Your task to perform on an android device: turn on wifi Image 0: 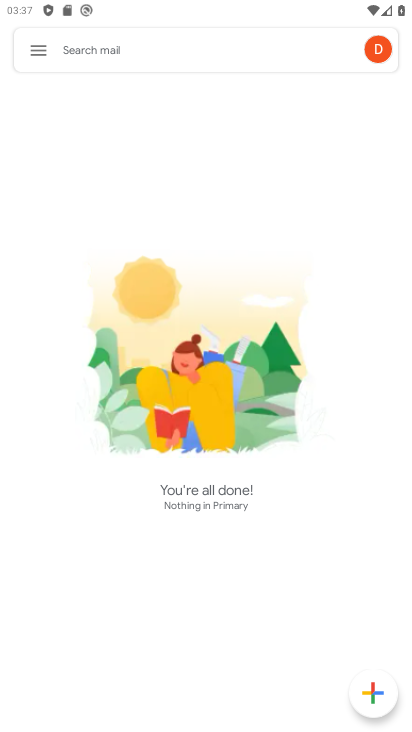
Step 0: press home button
Your task to perform on an android device: turn on wifi Image 1: 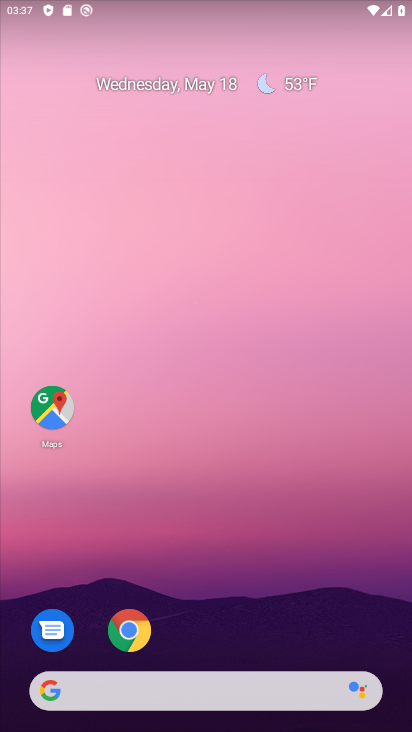
Step 1: drag from (212, 665) to (211, 215)
Your task to perform on an android device: turn on wifi Image 2: 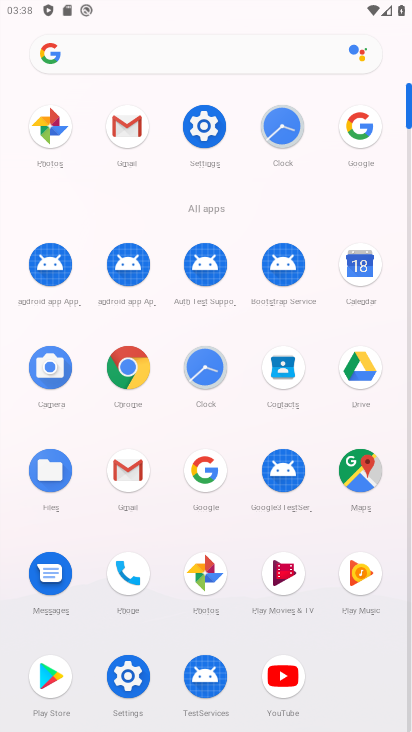
Step 2: click (196, 120)
Your task to perform on an android device: turn on wifi Image 3: 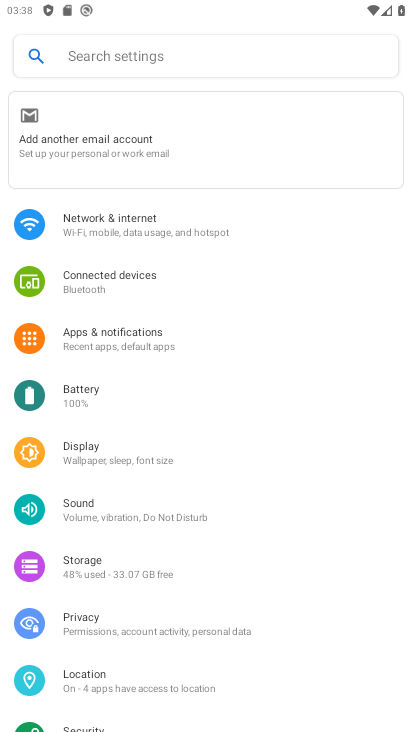
Step 3: click (131, 221)
Your task to perform on an android device: turn on wifi Image 4: 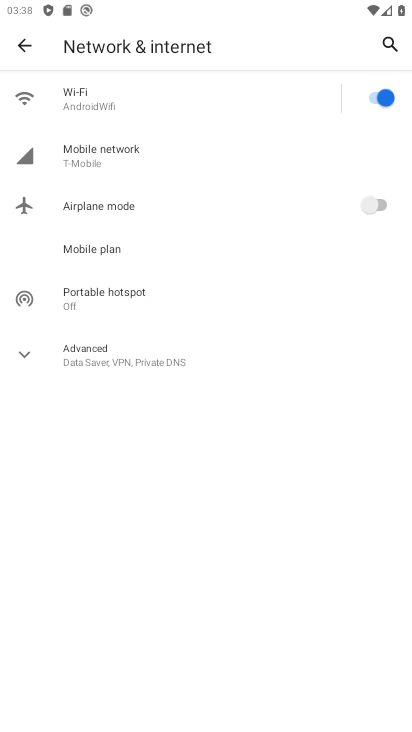
Step 4: task complete